Your task to perform on an android device: set the stopwatch Image 0: 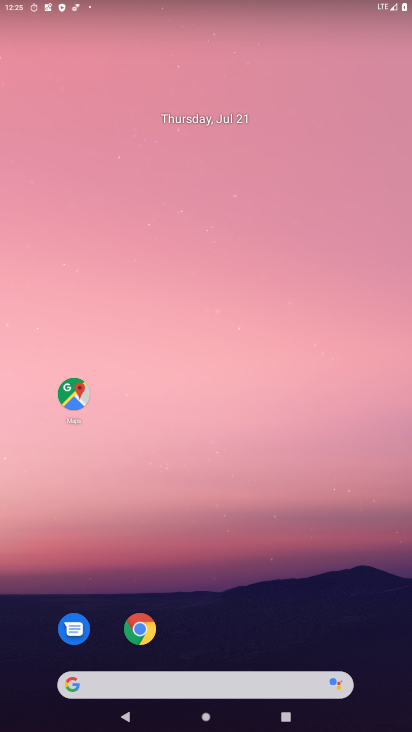
Step 0: drag from (233, 693) to (285, 130)
Your task to perform on an android device: set the stopwatch Image 1: 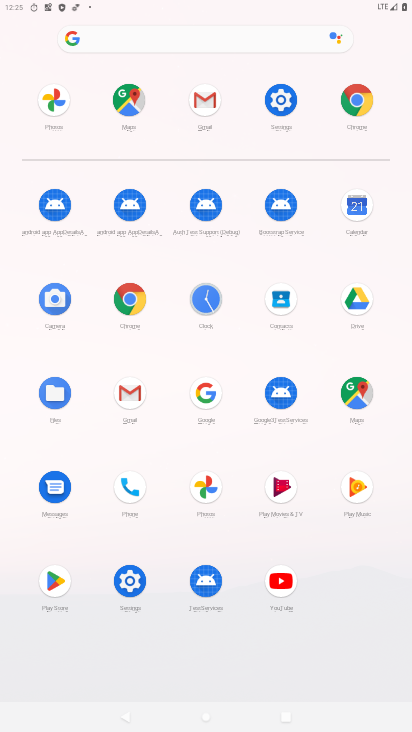
Step 1: click (213, 300)
Your task to perform on an android device: set the stopwatch Image 2: 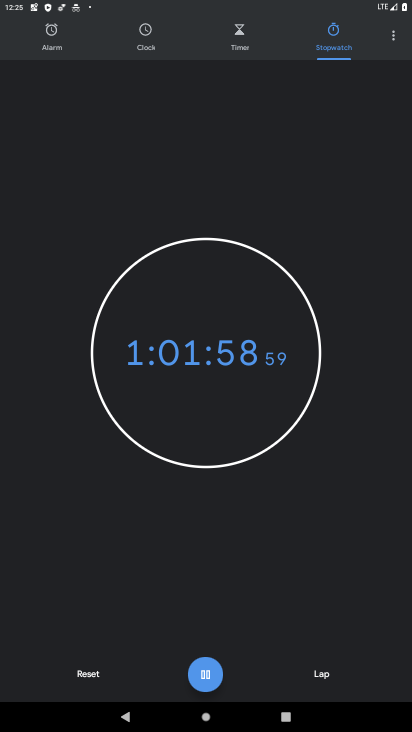
Step 2: task complete